Your task to perform on an android device: Go to network settings Image 0: 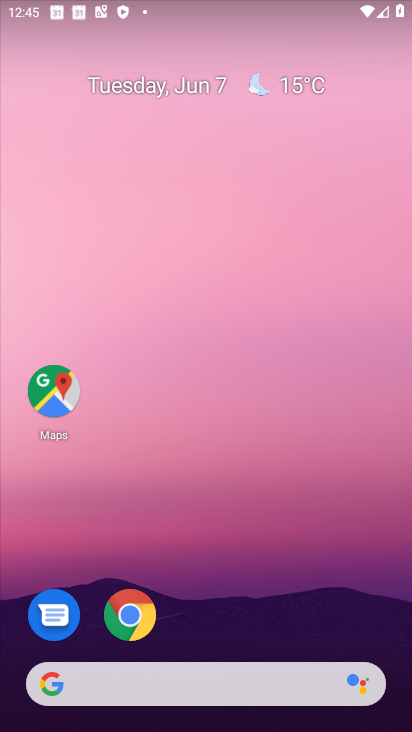
Step 0: drag from (189, 305) to (189, 8)
Your task to perform on an android device: Go to network settings Image 1: 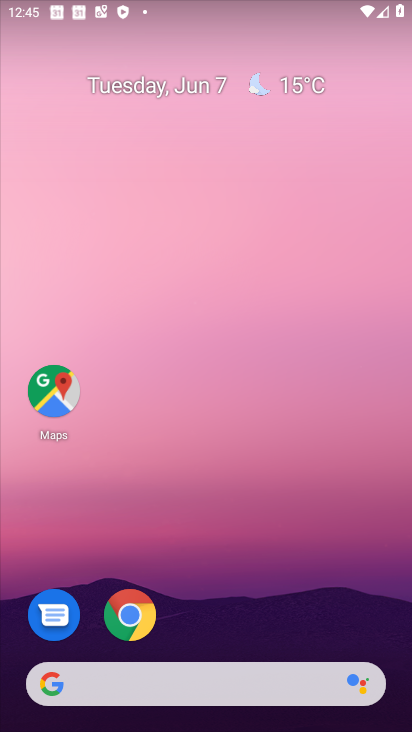
Step 1: drag from (207, 611) to (213, 73)
Your task to perform on an android device: Go to network settings Image 2: 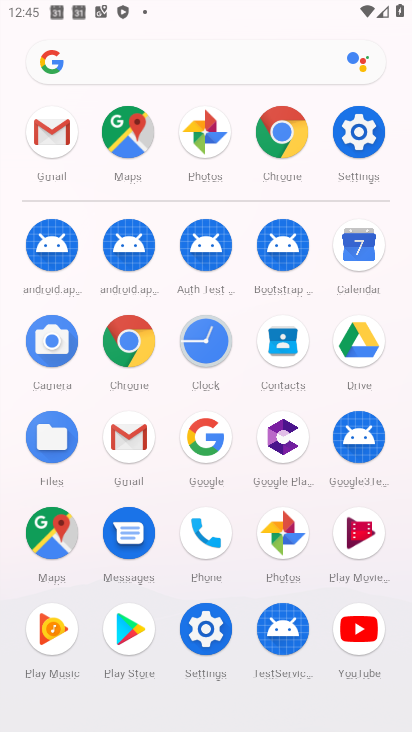
Step 2: click (359, 138)
Your task to perform on an android device: Go to network settings Image 3: 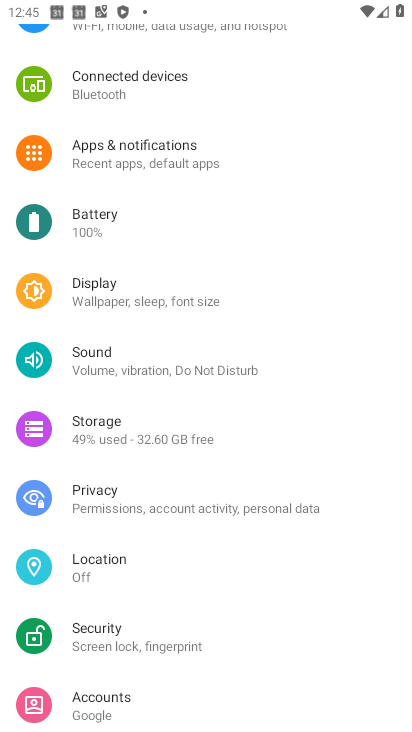
Step 3: drag from (119, 65) to (126, 506)
Your task to perform on an android device: Go to network settings Image 4: 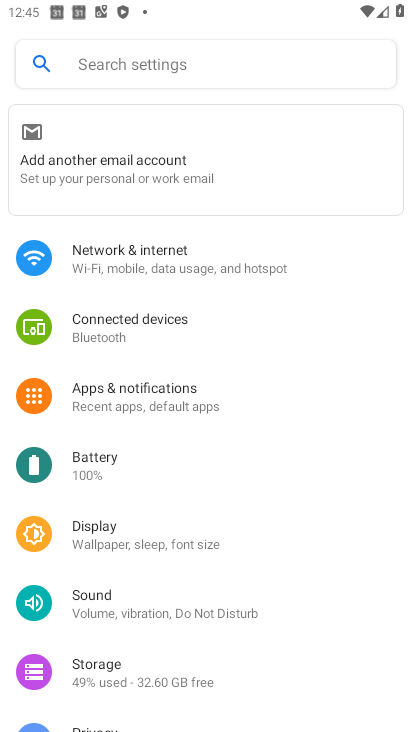
Step 4: click (107, 270)
Your task to perform on an android device: Go to network settings Image 5: 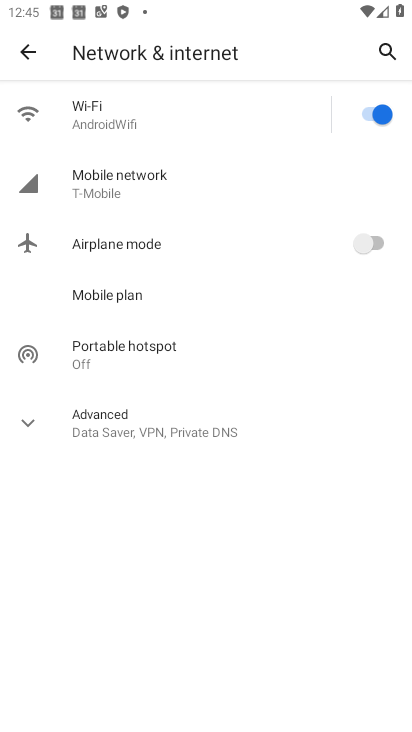
Step 5: task complete